Your task to perform on an android device: Open the calendar app, open the side menu, and click the "Day" option Image 0: 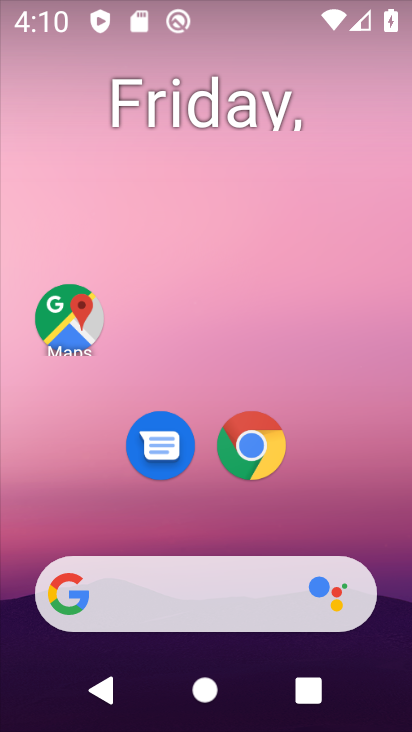
Step 0: drag from (341, 499) to (320, 127)
Your task to perform on an android device: Open the calendar app, open the side menu, and click the "Day" option Image 1: 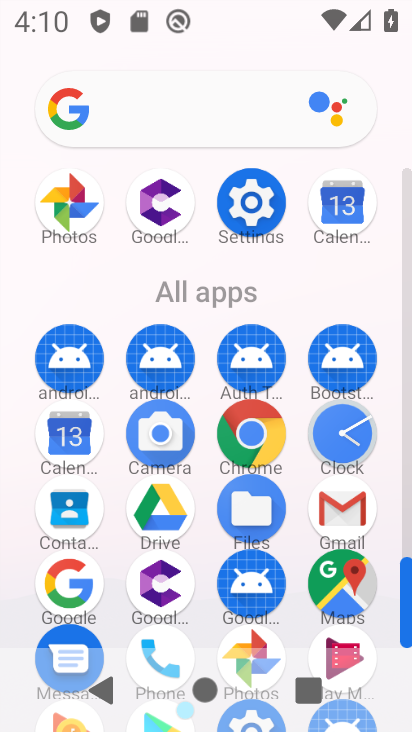
Step 1: click (77, 432)
Your task to perform on an android device: Open the calendar app, open the side menu, and click the "Day" option Image 2: 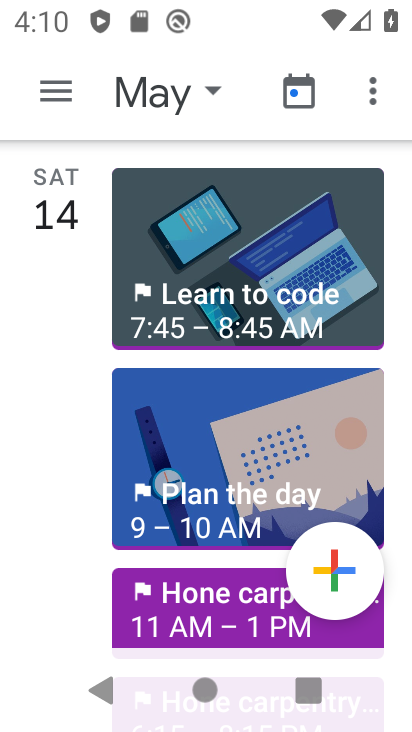
Step 2: click (56, 95)
Your task to perform on an android device: Open the calendar app, open the side menu, and click the "Day" option Image 3: 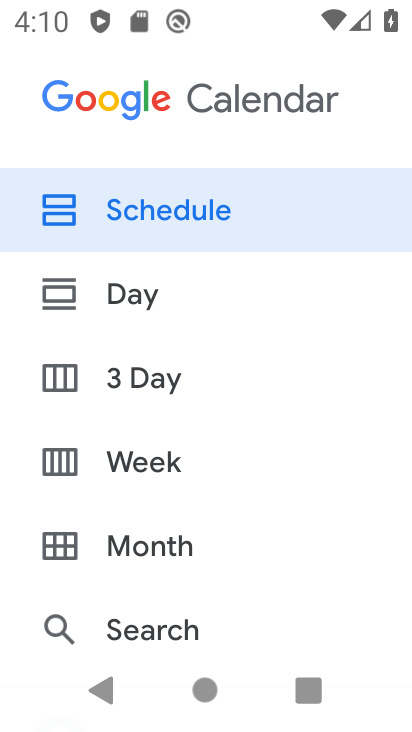
Step 3: click (144, 297)
Your task to perform on an android device: Open the calendar app, open the side menu, and click the "Day" option Image 4: 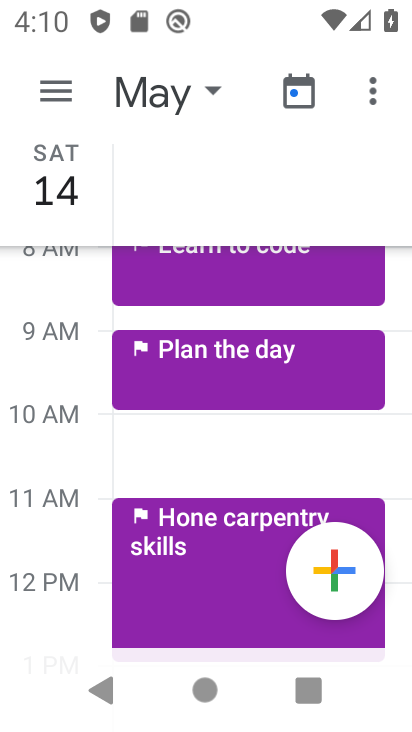
Step 4: task complete